Your task to perform on an android device: Go to Wikipedia Image 0: 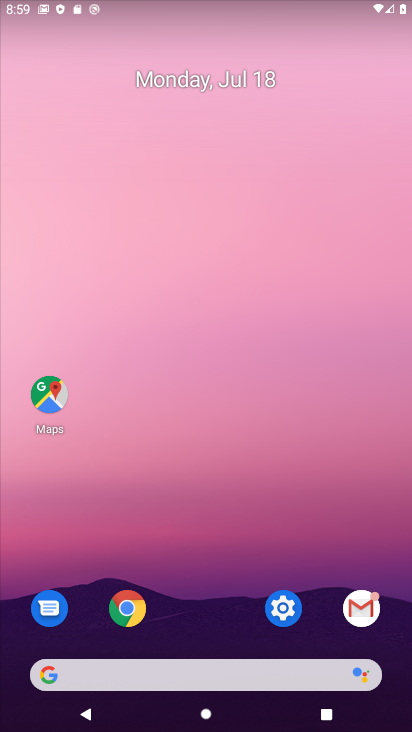
Step 0: click (137, 629)
Your task to perform on an android device: Go to Wikipedia Image 1: 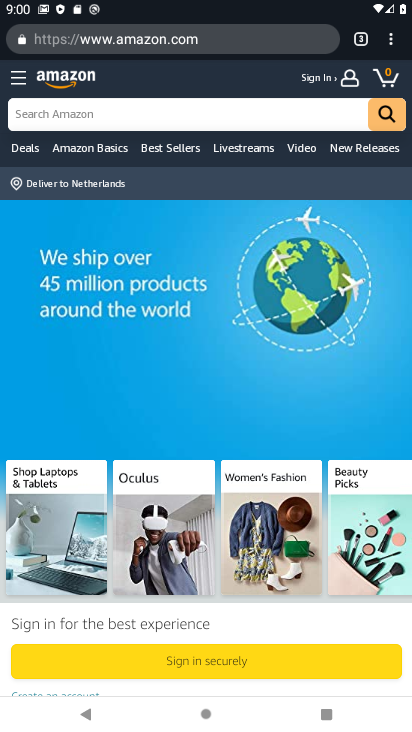
Step 1: click (395, 35)
Your task to perform on an android device: Go to Wikipedia Image 2: 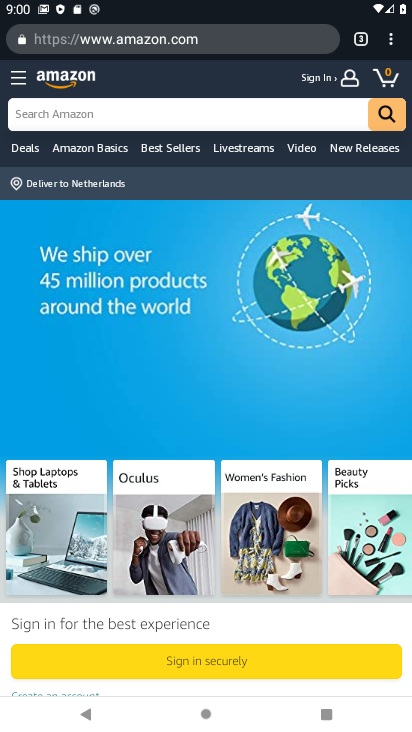
Step 2: click (396, 38)
Your task to perform on an android device: Go to Wikipedia Image 3: 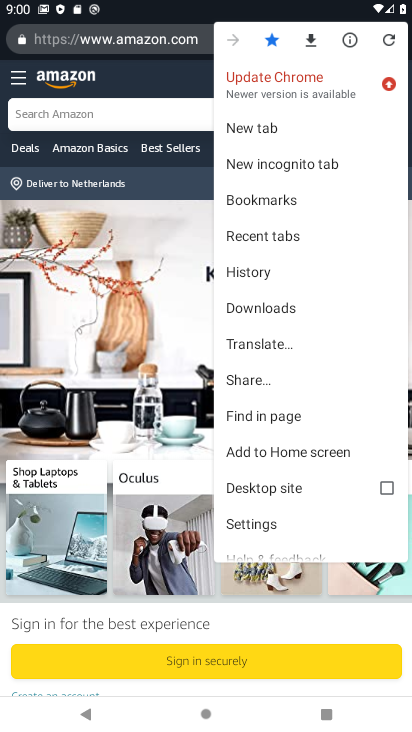
Step 3: click (254, 132)
Your task to perform on an android device: Go to Wikipedia Image 4: 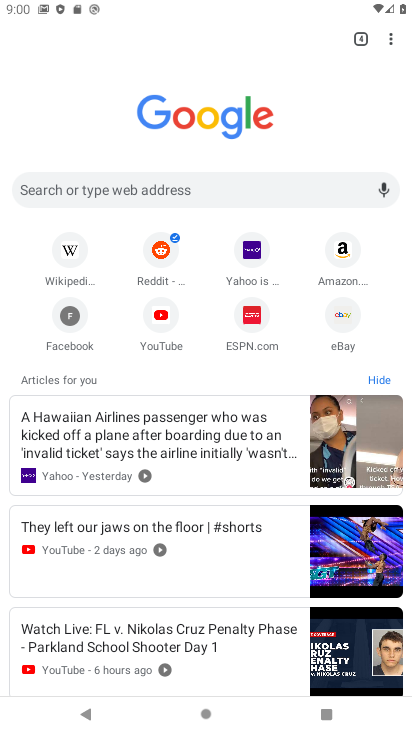
Step 4: click (82, 255)
Your task to perform on an android device: Go to Wikipedia Image 5: 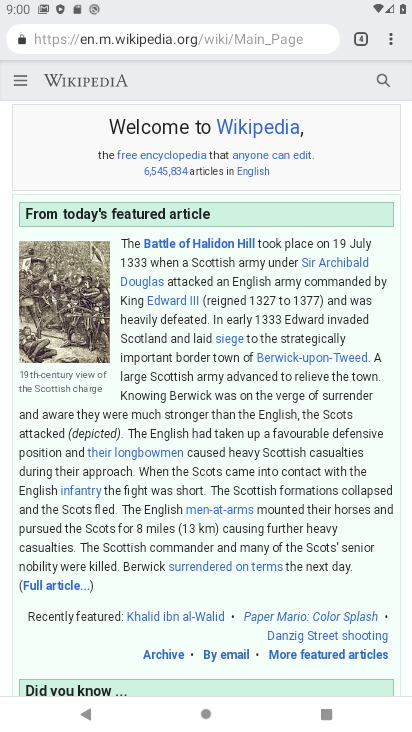
Step 5: task complete